Your task to perform on an android device: Is it going to rain tomorrow? Image 0: 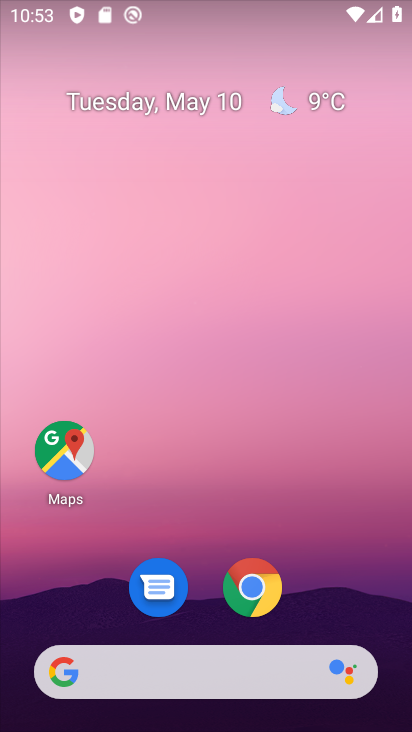
Step 0: click (320, 117)
Your task to perform on an android device: Is it going to rain tomorrow? Image 1: 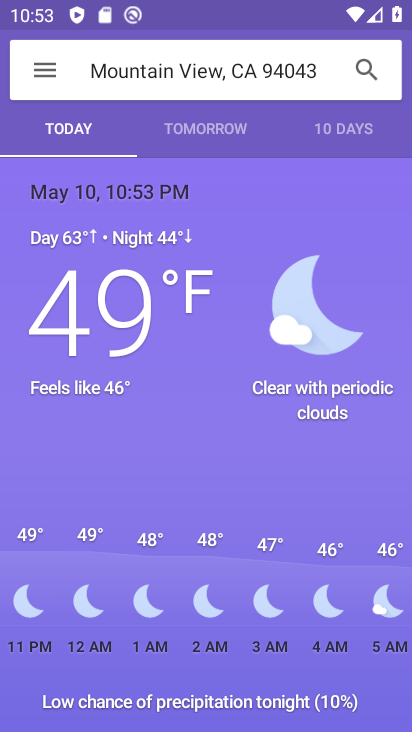
Step 1: click (217, 137)
Your task to perform on an android device: Is it going to rain tomorrow? Image 2: 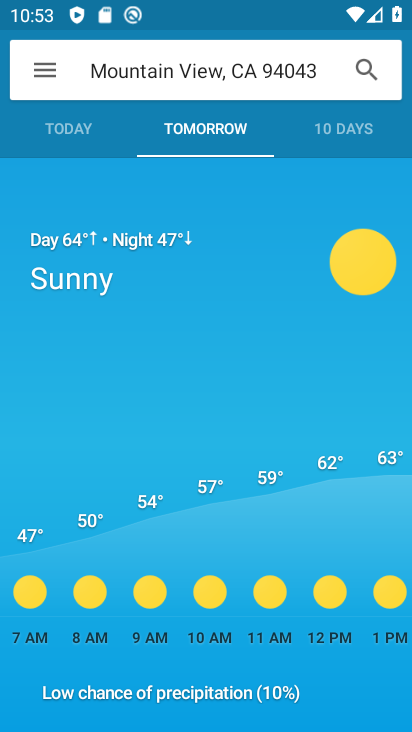
Step 2: task complete